Your task to perform on an android device: Open battery settings Image 0: 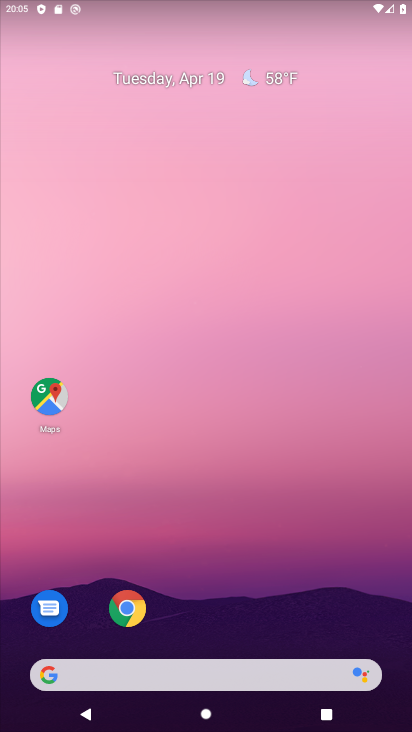
Step 0: drag from (239, 512) to (317, 88)
Your task to perform on an android device: Open battery settings Image 1: 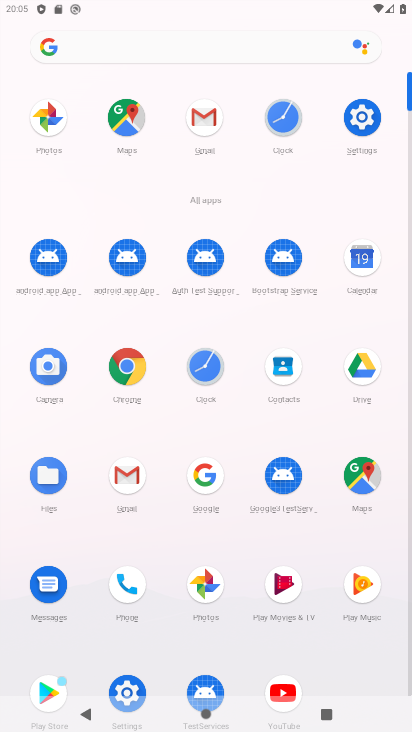
Step 1: click (362, 114)
Your task to perform on an android device: Open battery settings Image 2: 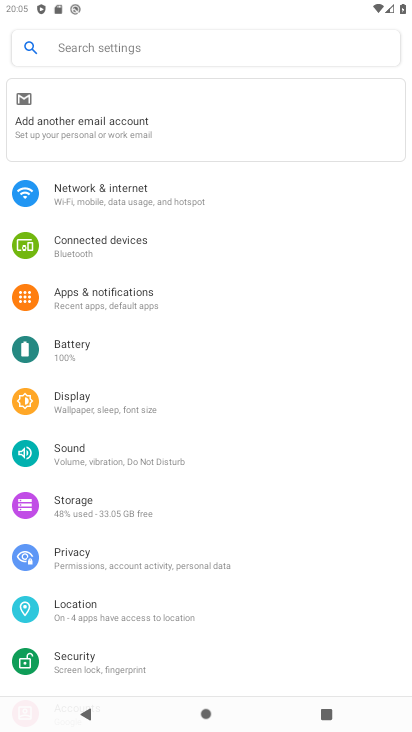
Step 2: click (86, 349)
Your task to perform on an android device: Open battery settings Image 3: 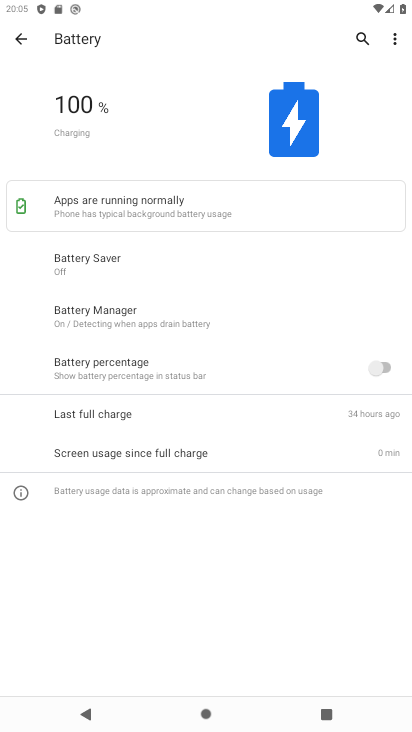
Step 3: task complete